Your task to perform on an android device: Open calendar and show me the first week of next month Image 0: 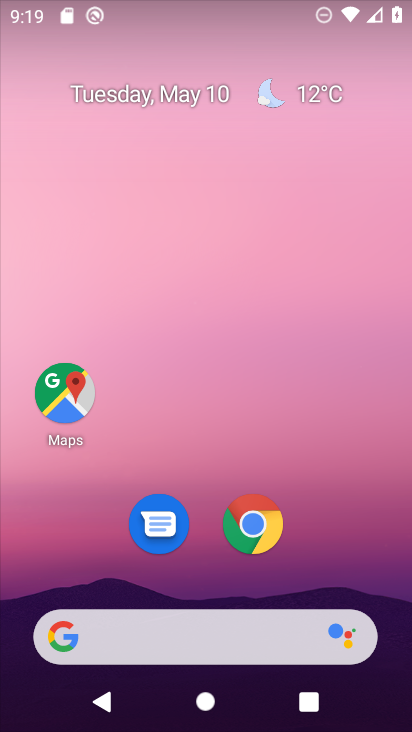
Step 0: drag from (326, 487) to (284, 42)
Your task to perform on an android device: Open calendar and show me the first week of next month Image 1: 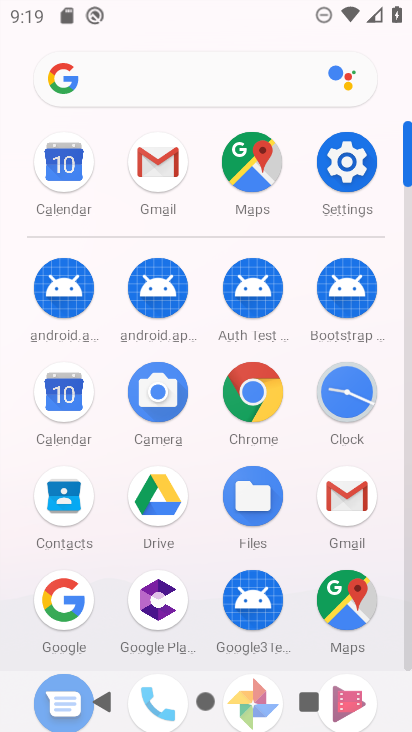
Step 1: click (62, 173)
Your task to perform on an android device: Open calendar and show me the first week of next month Image 2: 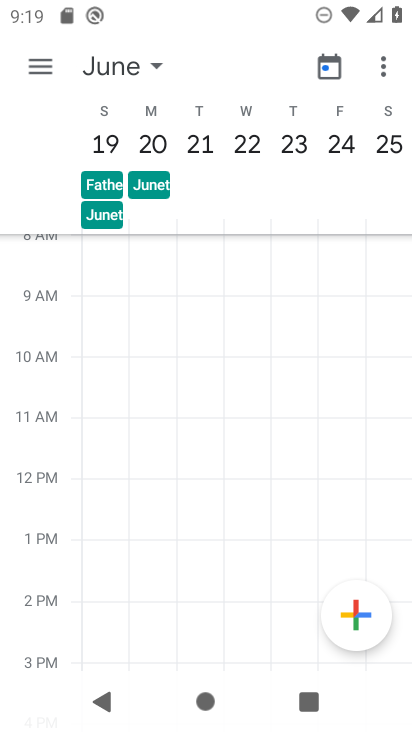
Step 2: task complete